Your task to perform on an android device: Open location settings Image 0: 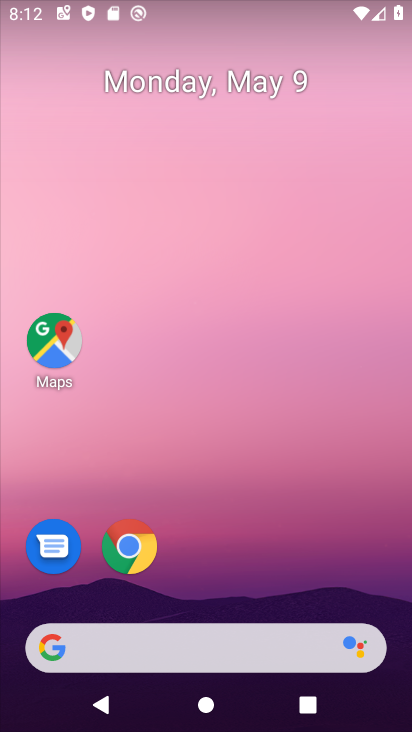
Step 0: drag from (256, 707) to (376, 126)
Your task to perform on an android device: Open location settings Image 1: 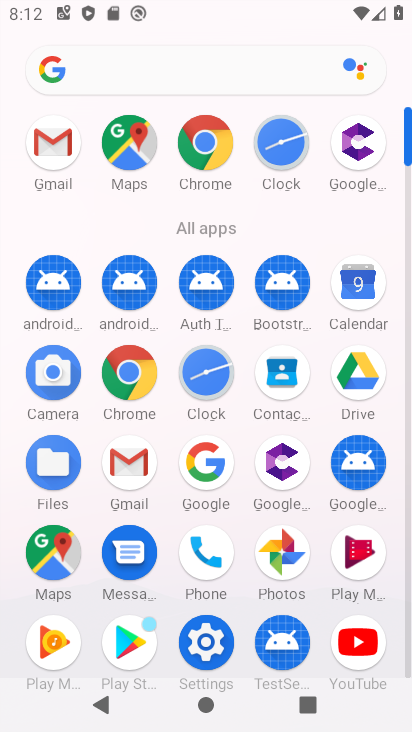
Step 1: click (215, 617)
Your task to perform on an android device: Open location settings Image 2: 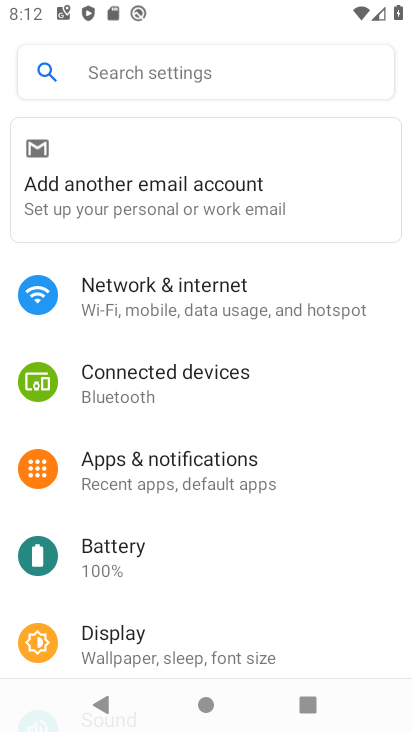
Step 2: drag from (133, 585) to (130, 119)
Your task to perform on an android device: Open location settings Image 3: 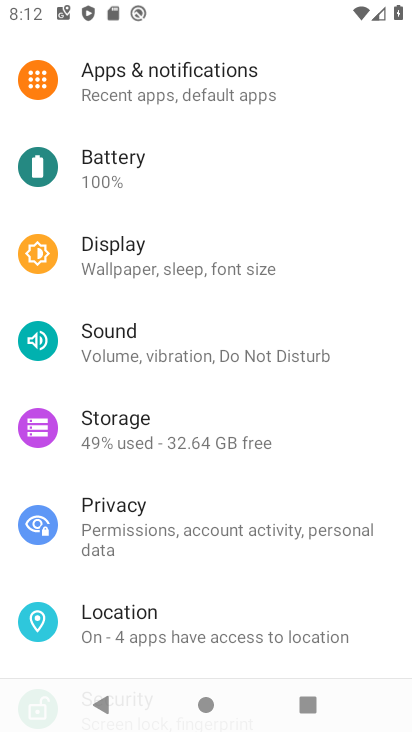
Step 3: click (146, 617)
Your task to perform on an android device: Open location settings Image 4: 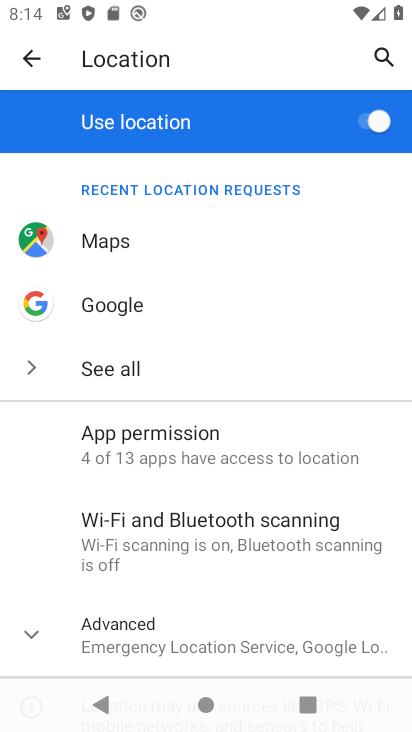
Step 4: task complete